Your task to perform on an android device: Go to settings Image 0: 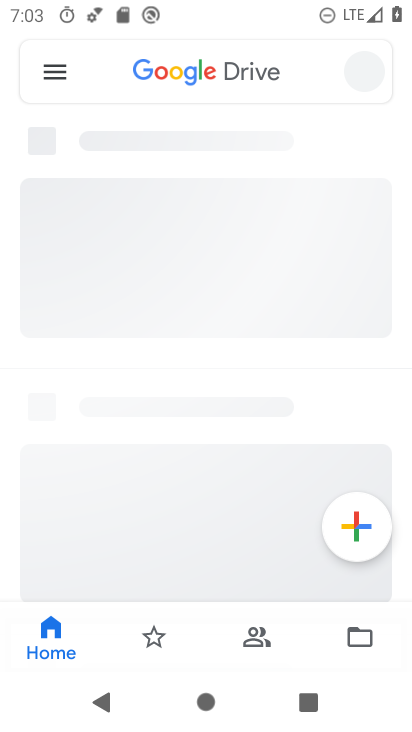
Step 0: drag from (393, 615) to (371, 183)
Your task to perform on an android device: Go to settings Image 1: 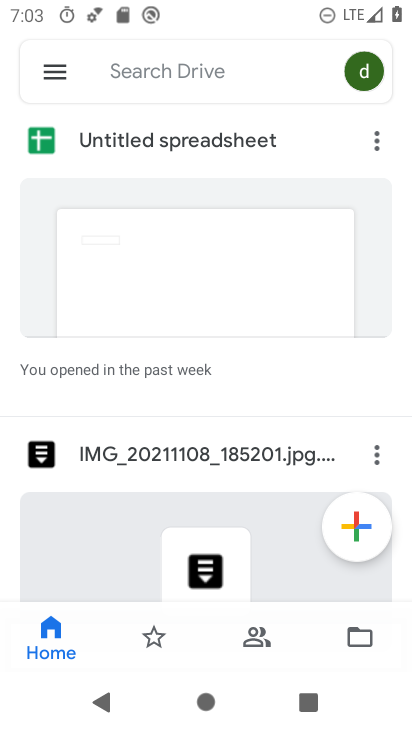
Step 1: press home button
Your task to perform on an android device: Go to settings Image 2: 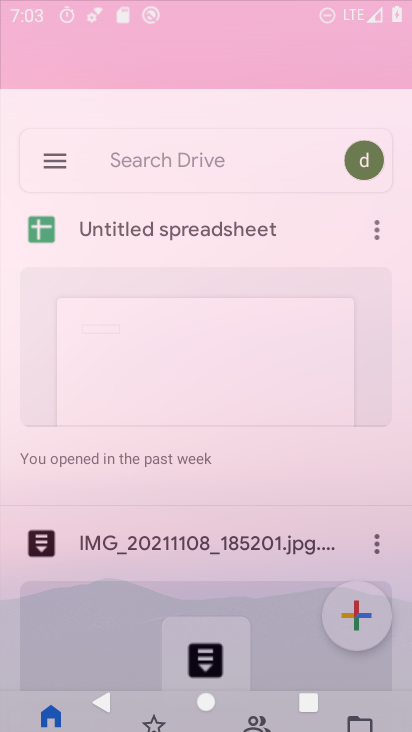
Step 2: drag from (345, 619) to (282, 32)
Your task to perform on an android device: Go to settings Image 3: 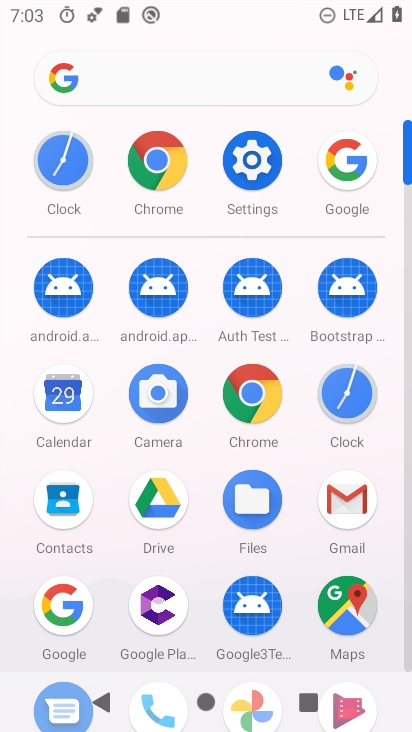
Step 3: click (242, 151)
Your task to perform on an android device: Go to settings Image 4: 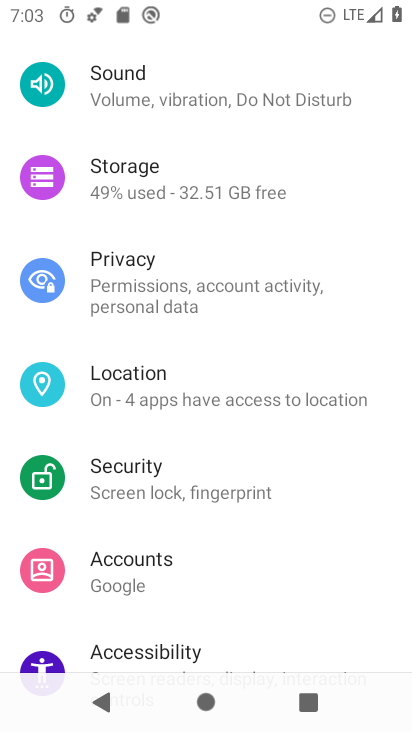
Step 4: task complete